Your task to perform on an android device: uninstall "Clock" Image 0: 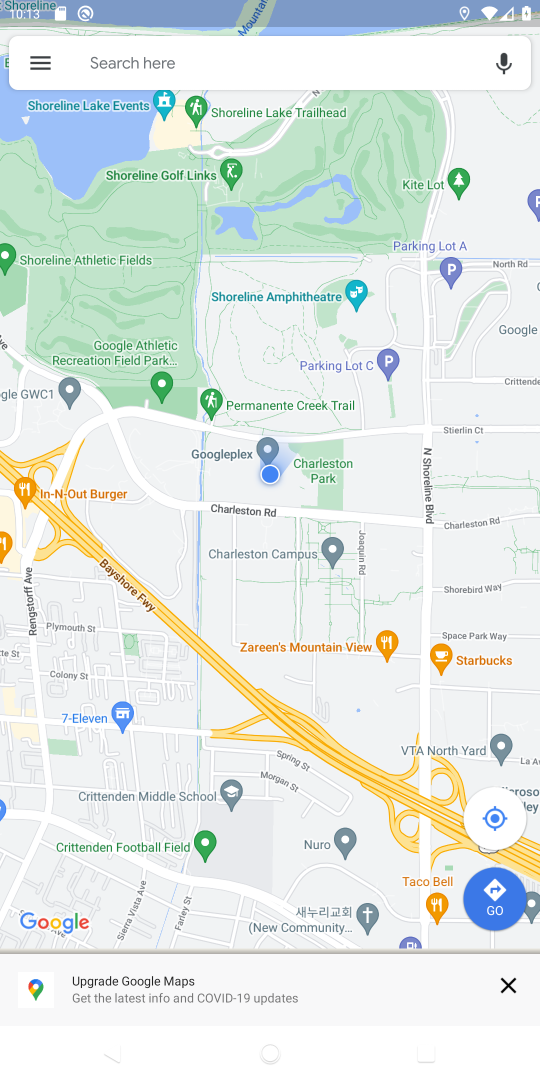
Step 0: press home button
Your task to perform on an android device: uninstall "Clock" Image 1: 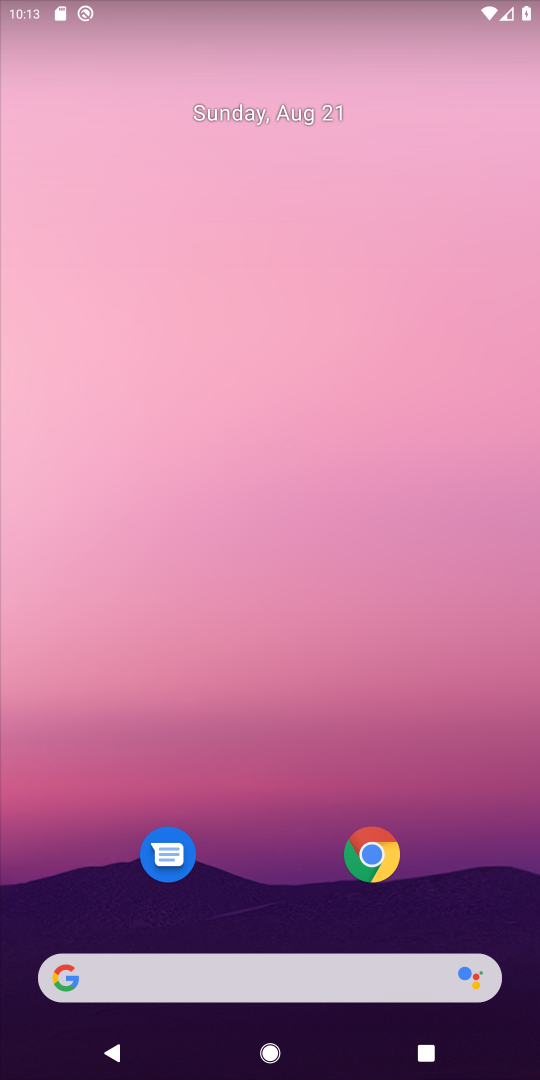
Step 1: task complete